Your task to perform on an android device: Open the calendar app, open the side menu, and click the "Day" option Image 0: 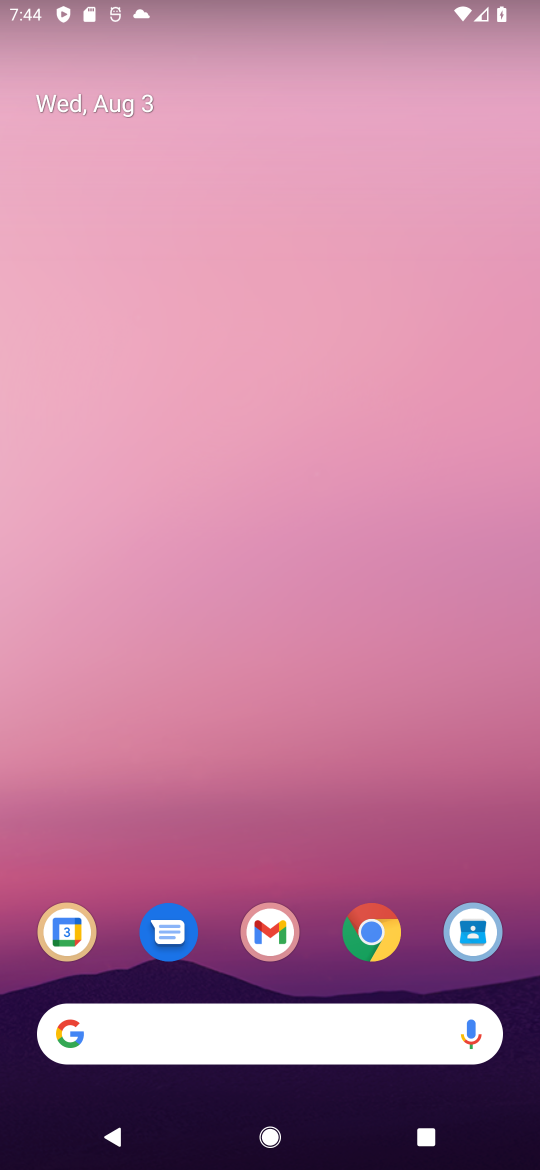
Step 0: click (67, 935)
Your task to perform on an android device: Open the calendar app, open the side menu, and click the "Day" option Image 1: 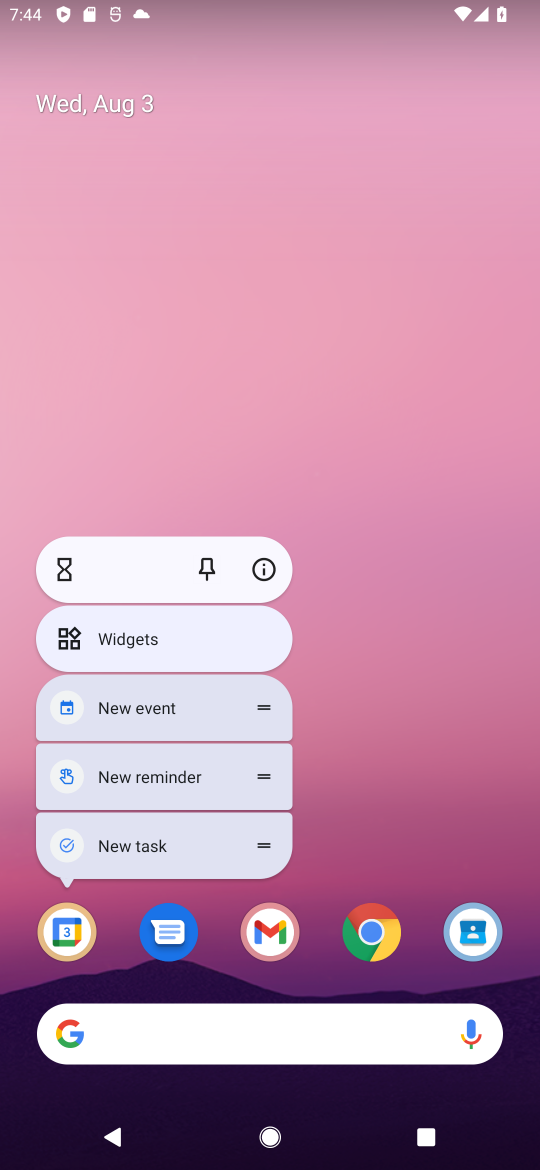
Step 1: click (67, 935)
Your task to perform on an android device: Open the calendar app, open the side menu, and click the "Day" option Image 2: 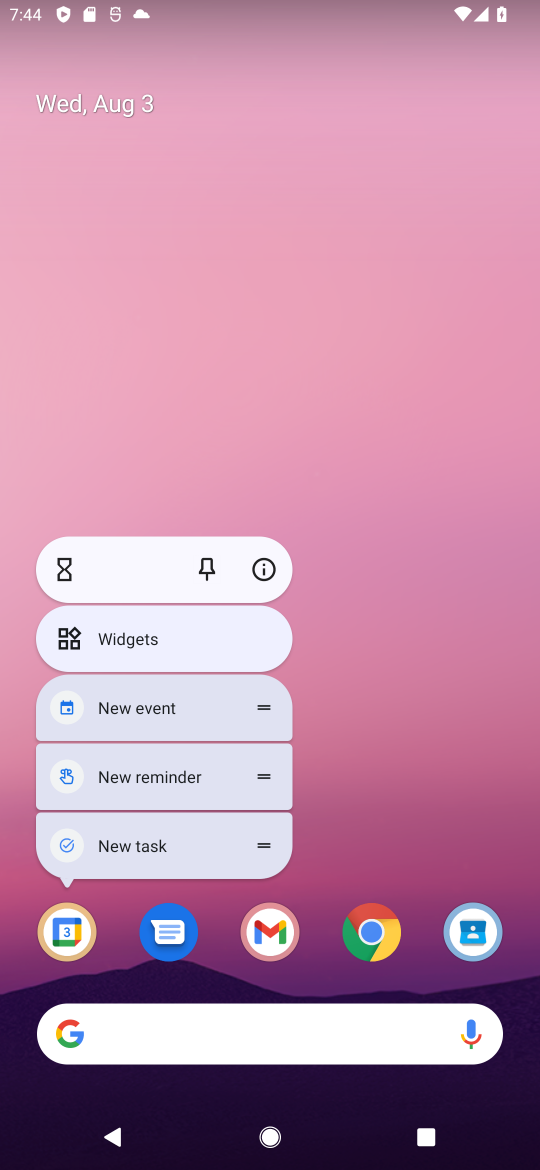
Step 2: click (67, 935)
Your task to perform on an android device: Open the calendar app, open the side menu, and click the "Day" option Image 3: 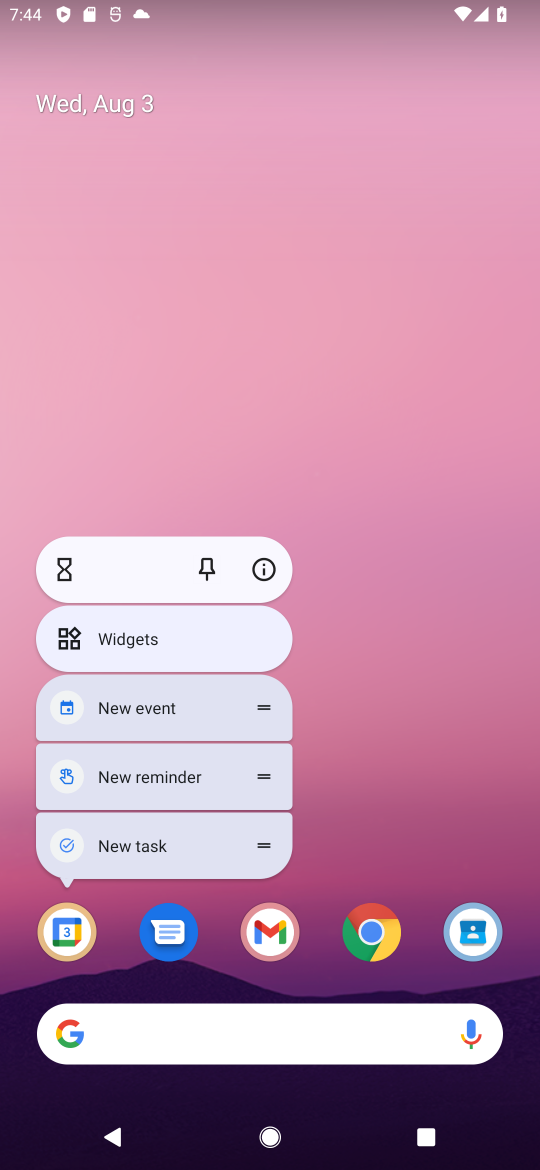
Step 3: click (67, 935)
Your task to perform on an android device: Open the calendar app, open the side menu, and click the "Day" option Image 4: 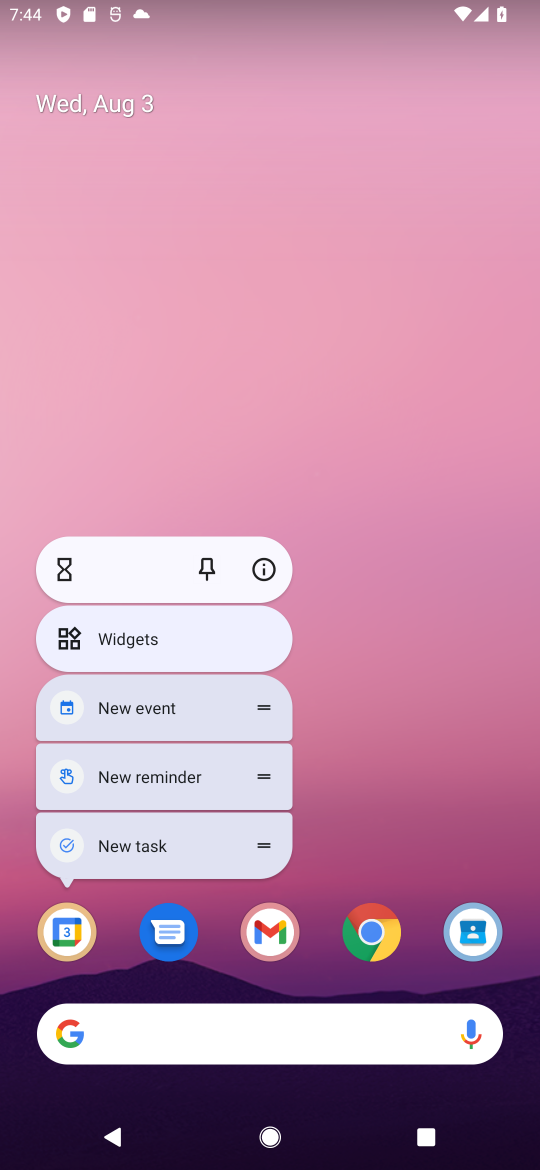
Step 4: click (67, 935)
Your task to perform on an android device: Open the calendar app, open the side menu, and click the "Day" option Image 5: 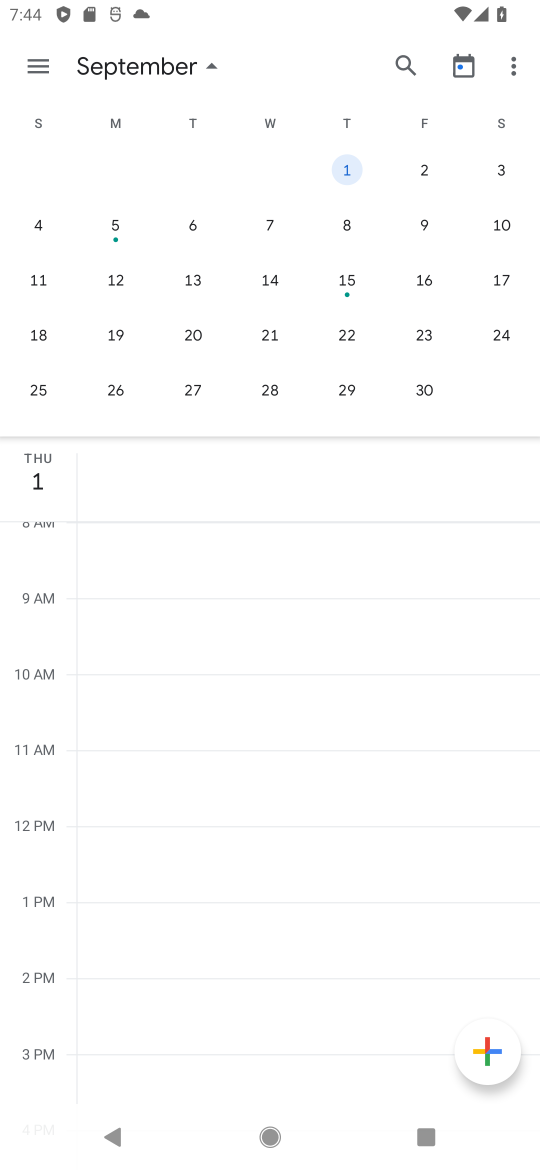
Step 5: click (30, 68)
Your task to perform on an android device: Open the calendar app, open the side menu, and click the "Day" option Image 6: 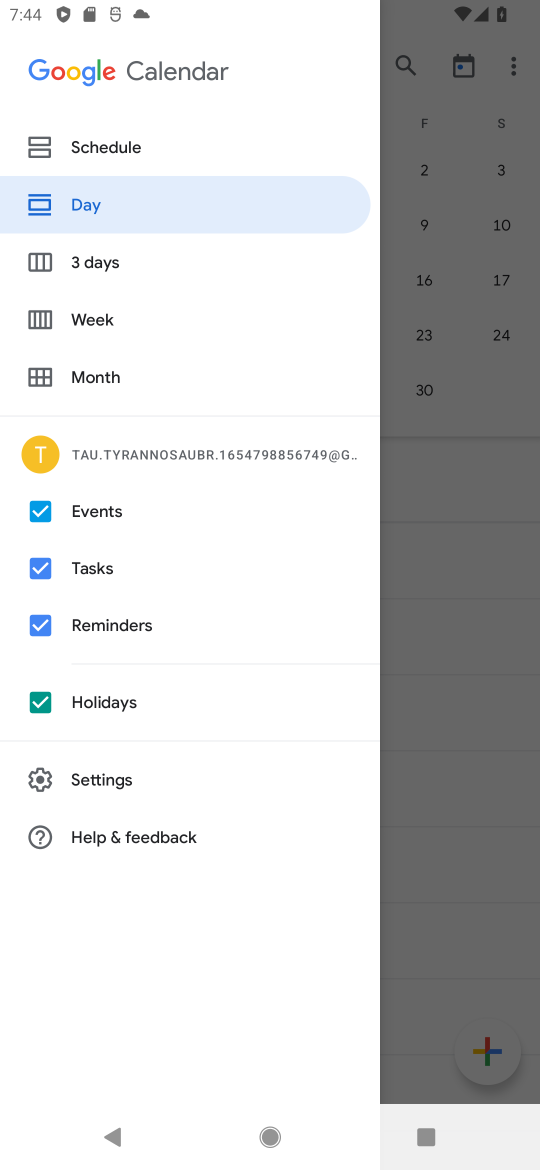
Step 6: click (96, 208)
Your task to perform on an android device: Open the calendar app, open the side menu, and click the "Day" option Image 7: 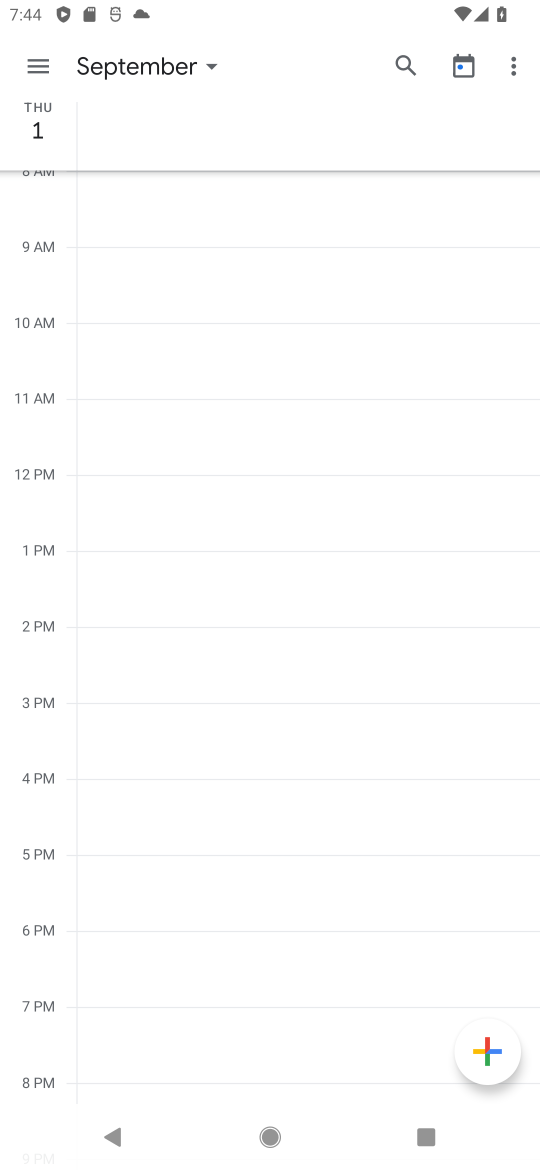
Step 7: task complete